Your task to perform on an android device: Search for Mexican restaurants on Maps Image 0: 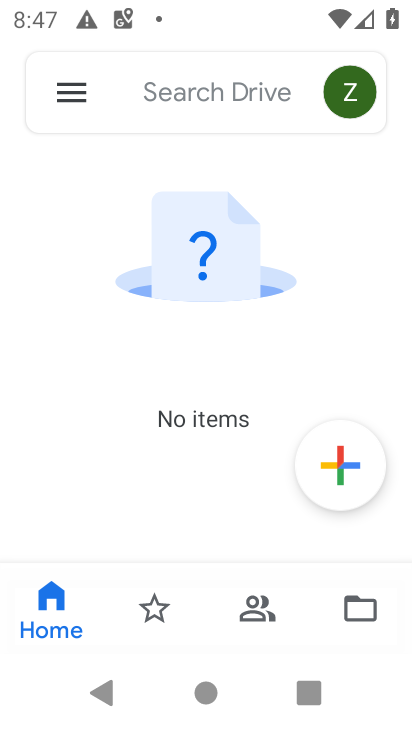
Step 0: click (16, 39)
Your task to perform on an android device: Search for Mexican restaurants on Maps Image 1: 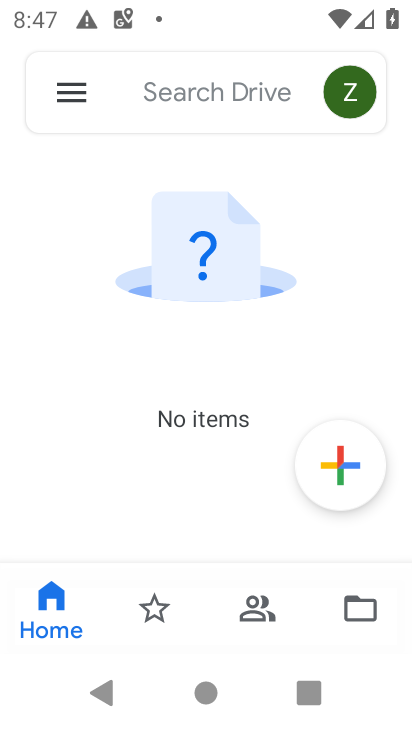
Step 1: task complete